Your task to perform on an android device: check the backup settings in the google photos Image 0: 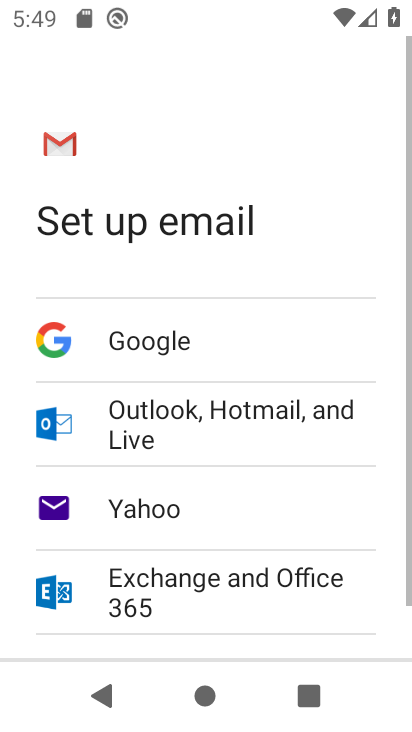
Step 0: press home button
Your task to perform on an android device: check the backup settings in the google photos Image 1: 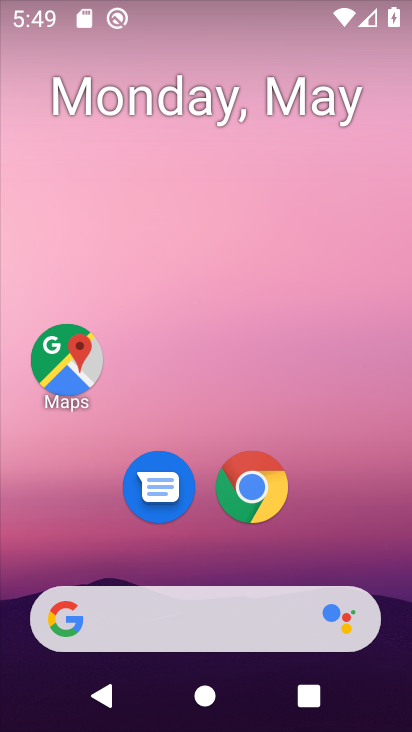
Step 1: drag from (200, 557) to (197, 6)
Your task to perform on an android device: check the backup settings in the google photos Image 2: 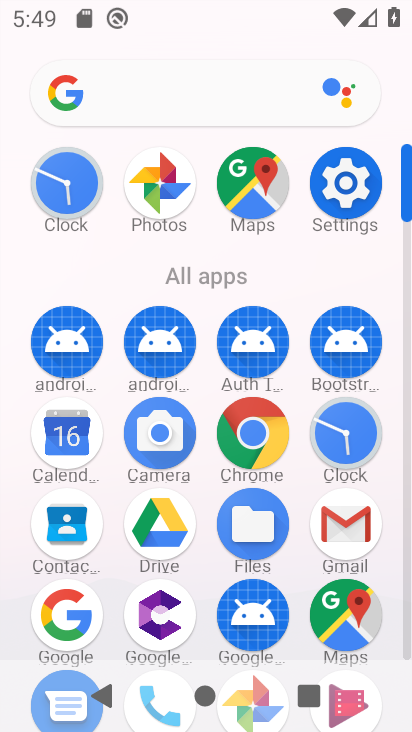
Step 2: click (160, 175)
Your task to perform on an android device: check the backup settings in the google photos Image 3: 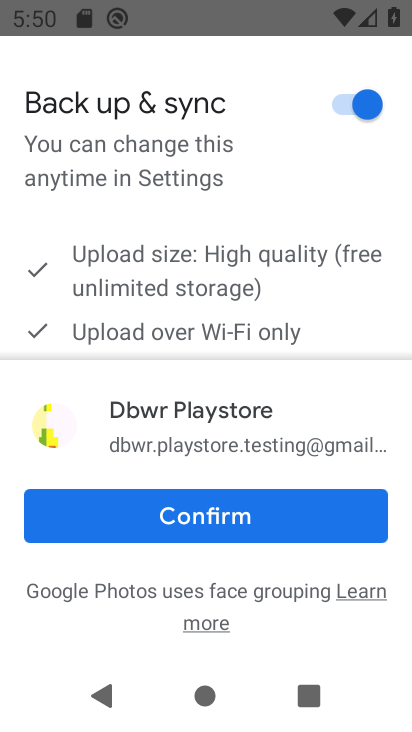
Step 3: click (205, 513)
Your task to perform on an android device: check the backup settings in the google photos Image 4: 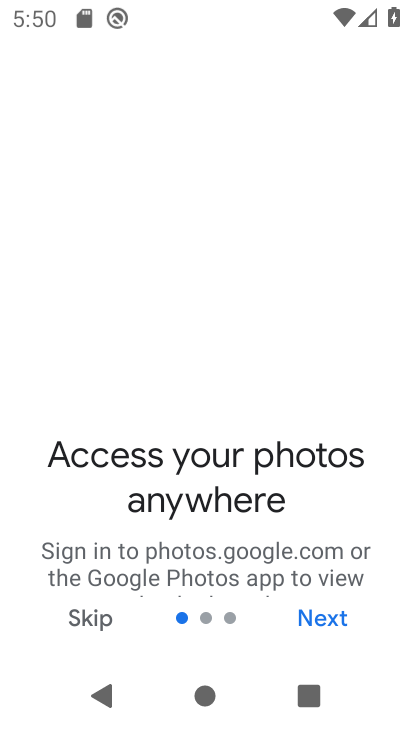
Step 4: click (316, 615)
Your task to perform on an android device: check the backup settings in the google photos Image 5: 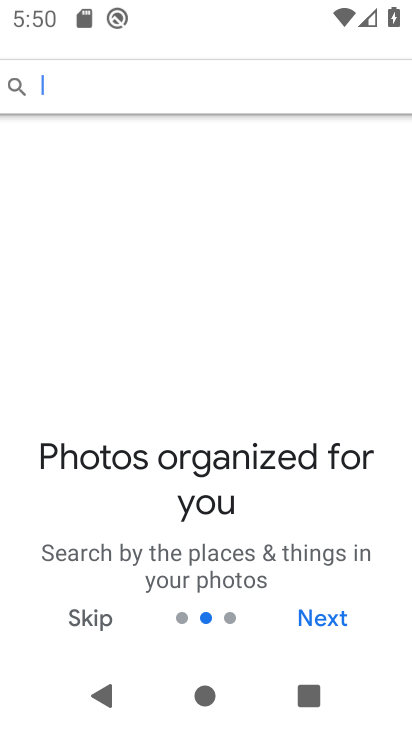
Step 5: click (316, 615)
Your task to perform on an android device: check the backup settings in the google photos Image 6: 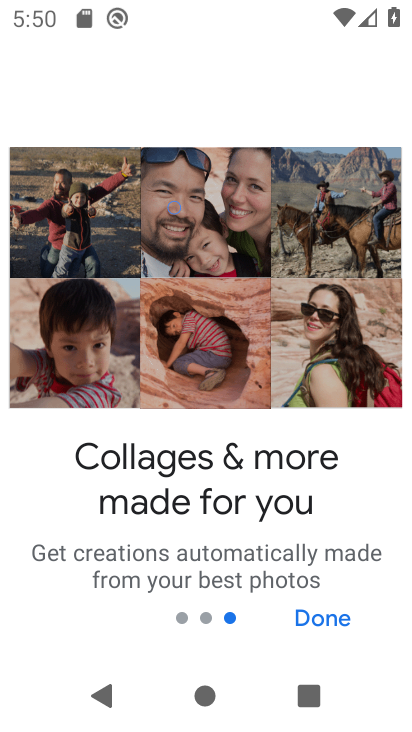
Step 6: click (316, 615)
Your task to perform on an android device: check the backup settings in the google photos Image 7: 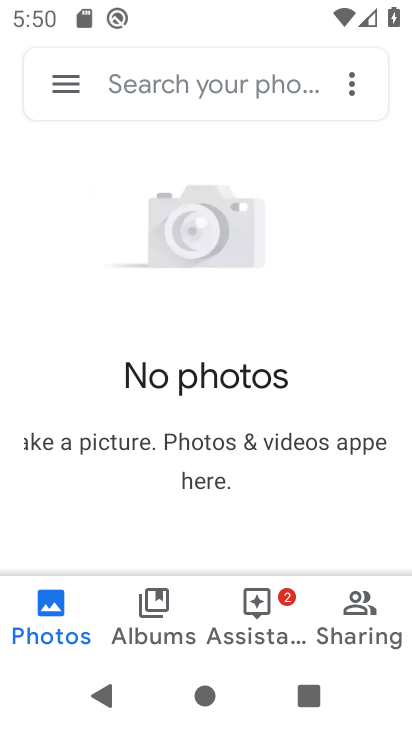
Step 7: click (68, 88)
Your task to perform on an android device: check the backup settings in the google photos Image 8: 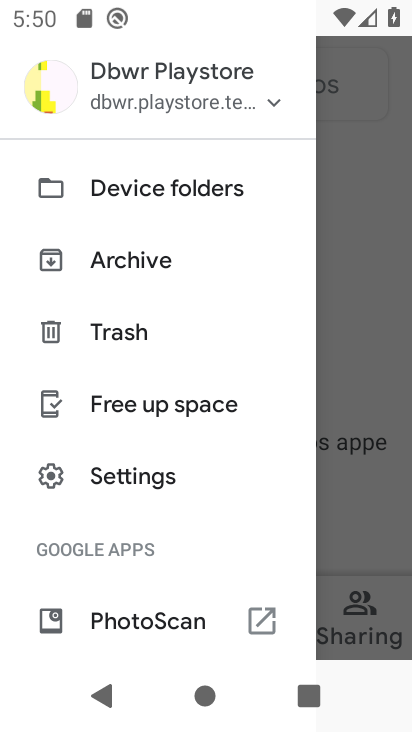
Step 8: click (155, 474)
Your task to perform on an android device: check the backup settings in the google photos Image 9: 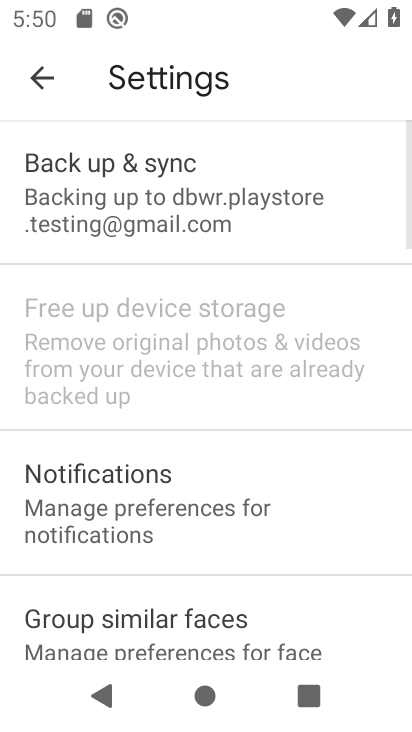
Step 9: click (175, 186)
Your task to perform on an android device: check the backup settings in the google photos Image 10: 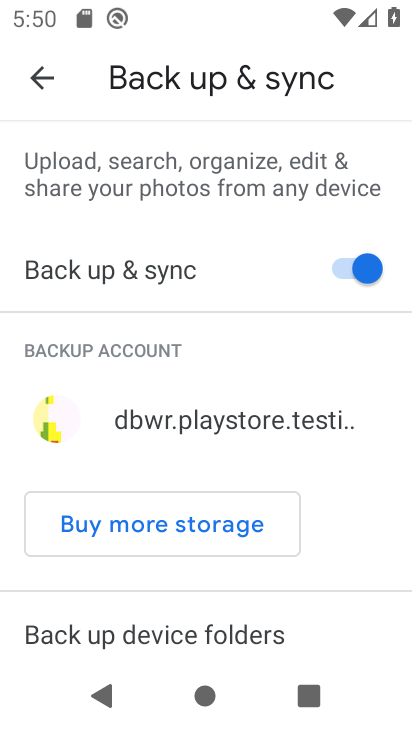
Step 10: task complete